Your task to perform on an android device: delete a single message in the gmail app Image 0: 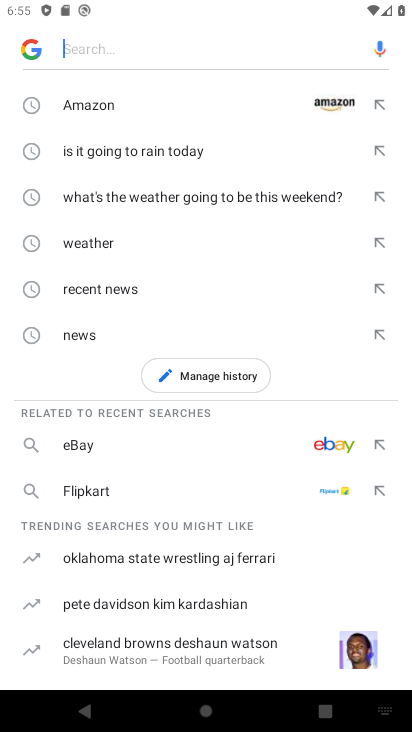
Step 0: press home button
Your task to perform on an android device: delete a single message in the gmail app Image 1: 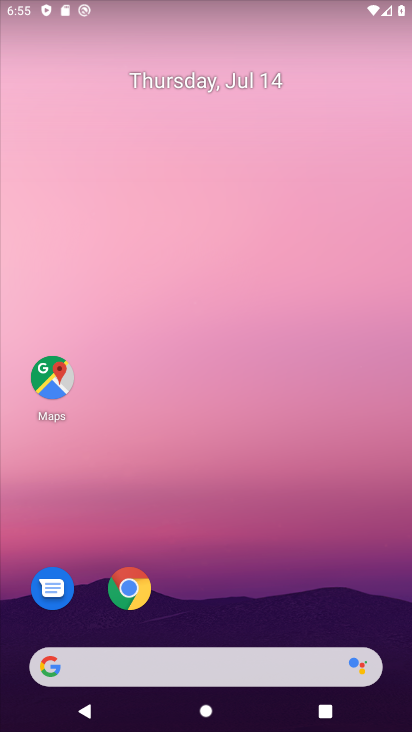
Step 1: drag from (297, 620) to (239, 6)
Your task to perform on an android device: delete a single message in the gmail app Image 2: 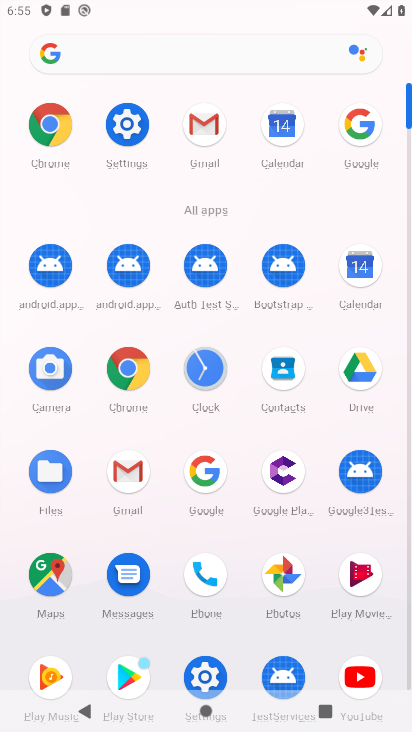
Step 2: click (119, 467)
Your task to perform on an android device: delete a single message in the gmail app Image 3: 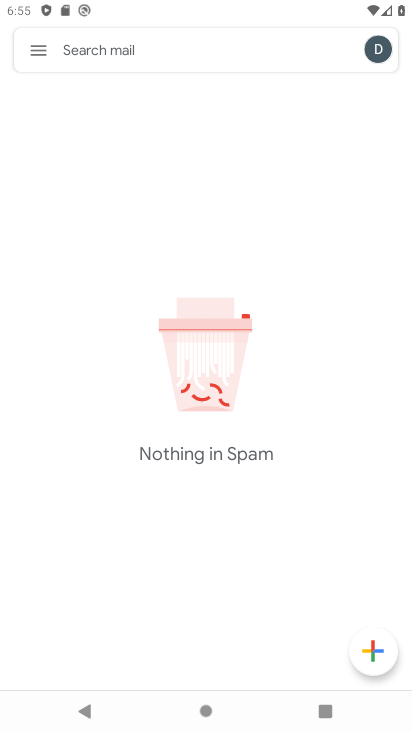
Step 3: click (39, 66)
Your task to perform on an android device: delete a single message in the gmail app Image 4: 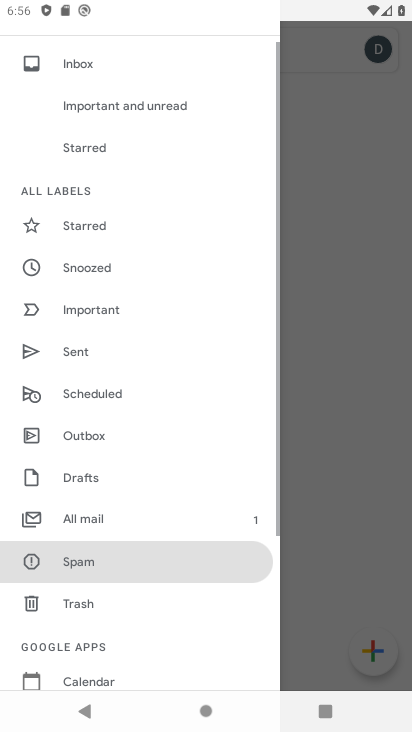
Step 4: drag from (114, 103) to (127, 515)
Your task to perform on an android device: delete a single message in the gmail app Image 5: 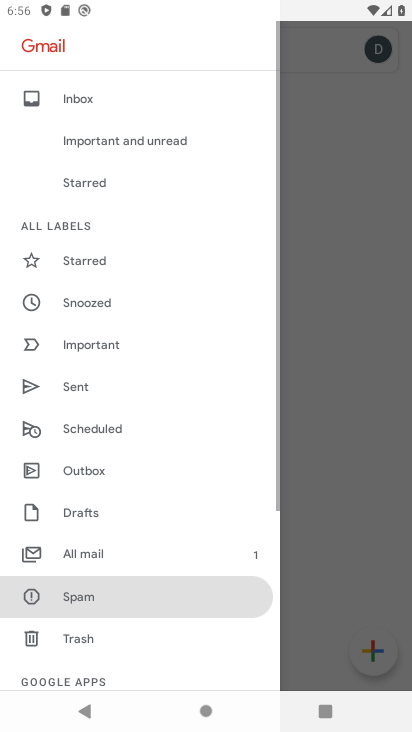
Step 5: click (76, 108)
Your task to perform on an android device: delete a single message in the gmail app Image 6: 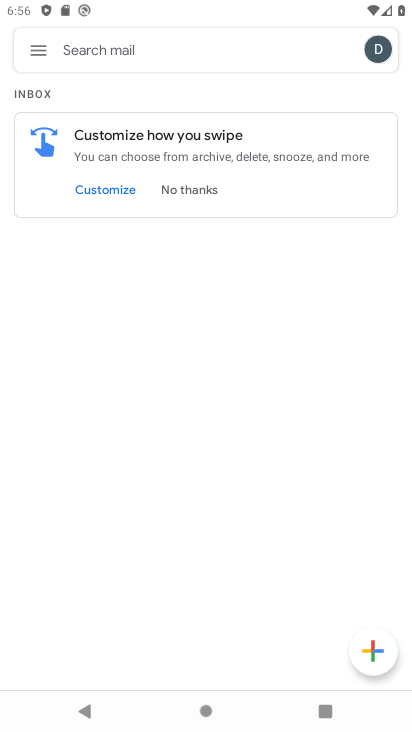
Step 6: task complete